Your task to perform on an android device: Search for Mexican restaurants on Maps Image 0: 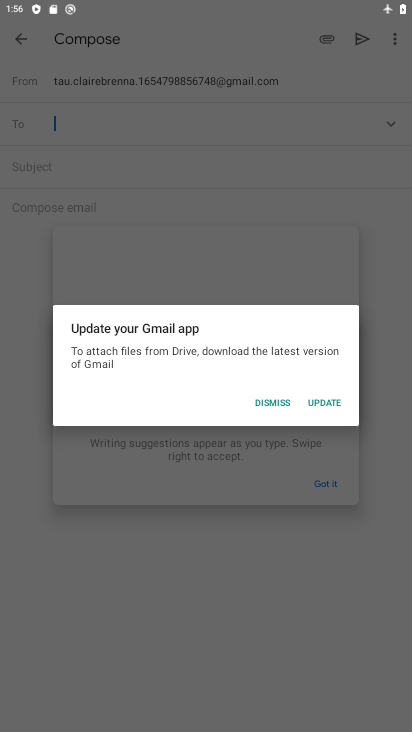
Step 0: press home button
Your task to perform on an android device: Search for Mexican restaurants on Maps Image 1: 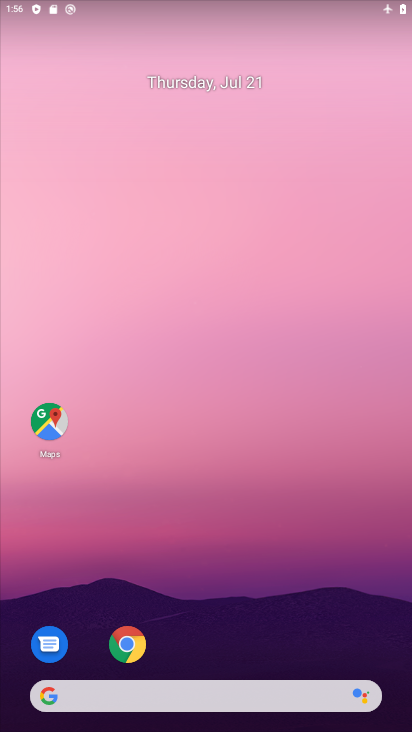
Step 1: drag from (215, 652) to (174, 103)
Your task to perform on an android device: Search for Mexican restaurants on Maps Image 2: 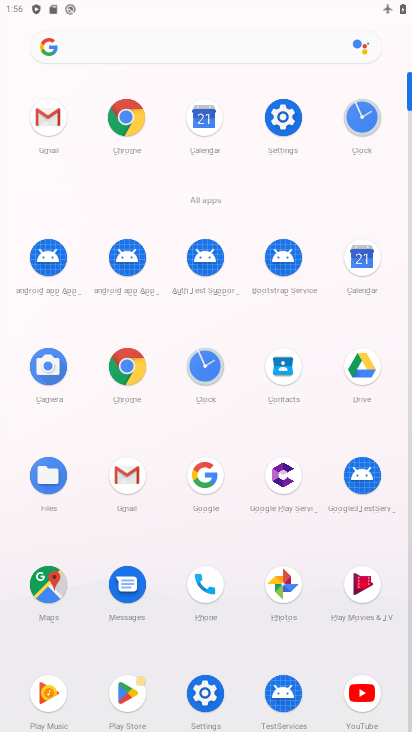
Step 2: click (33, 586)
Your task to perform on an android device: Search for Mexican restaurants on Maps Image 3: 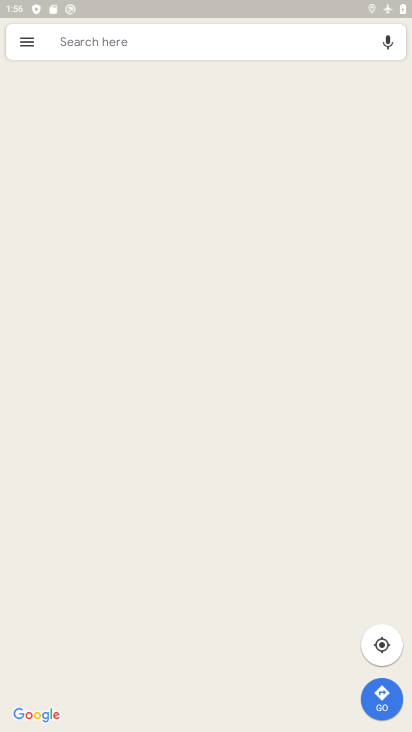
Step 3: click (205, 40)
Your task to perform on an android device: Search for Mexican restaurants on Maps Image 4: 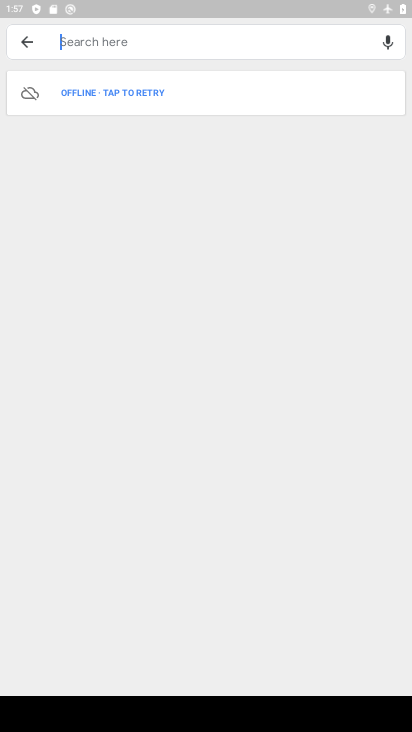
Step 4: type "Mexican restaurants"
Your task to perform on an android device: Search for Mexican restaurants on Maps Image 5: 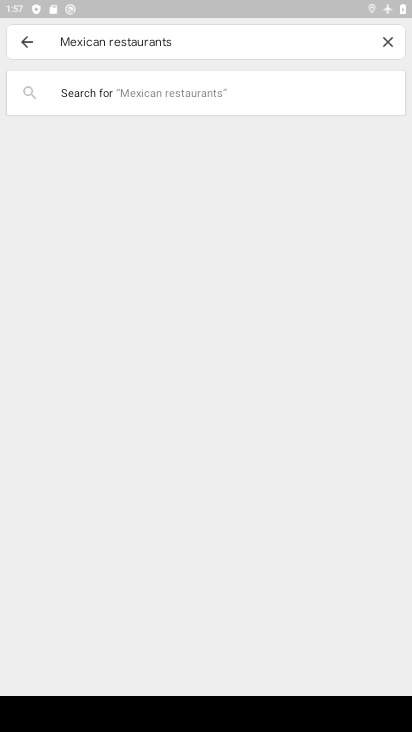
Step 5: click (284, 106)
Your task to perform on an android device: Search for Mexican restaurants on Maps Image 6: 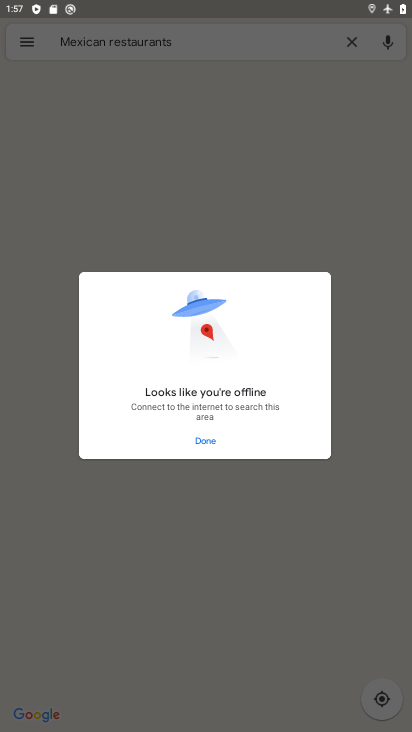
Step 6: task complete